Your task to perform on an android device: Open the calendar app, open the side menu, and click the "Day" option Image 0: 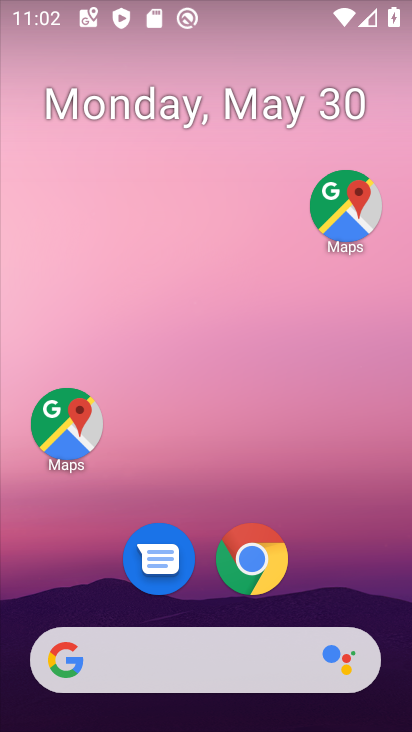
Step 0: drag from (376, 508) to (391, 153)
Your task to perform on an android device: Open the calendar app, open the side menu, and click the "Day" option Image 1: 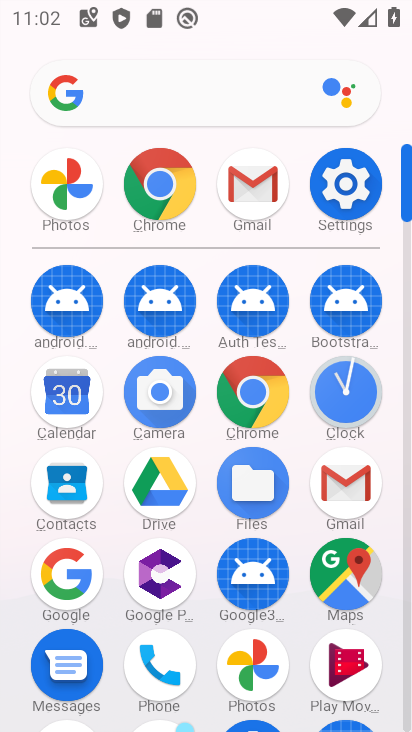
Step 1: click (54, 392)
Your task to perform on an android device: Open the calendar app, open the side menu, and click the "Day" option Image 2: 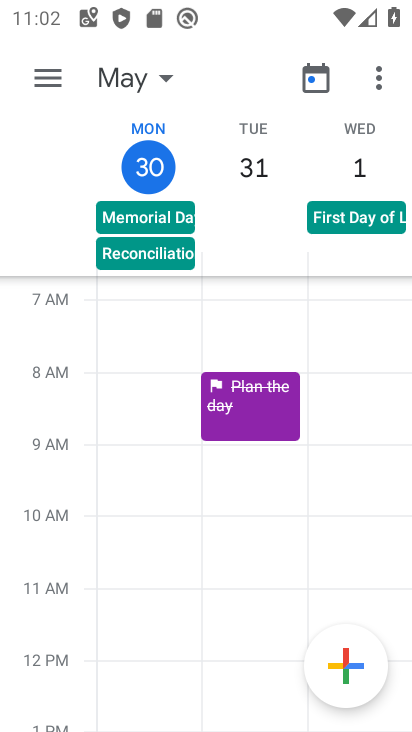
Step 2: click (52, 68)
Your task to perform on an android device: Open the calendar app, open the side menu, and click the "Day" option Image 3: 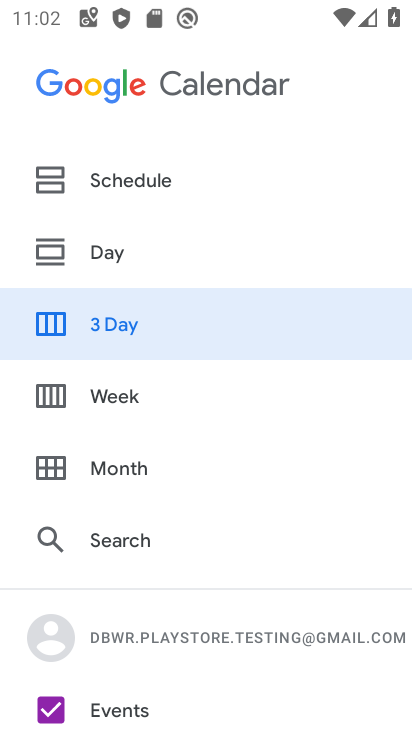
Step 3: click (134, 250)
Your task to perform on an android device: Open the calendar app, open the side menu, and click the "Day" option Image 4: 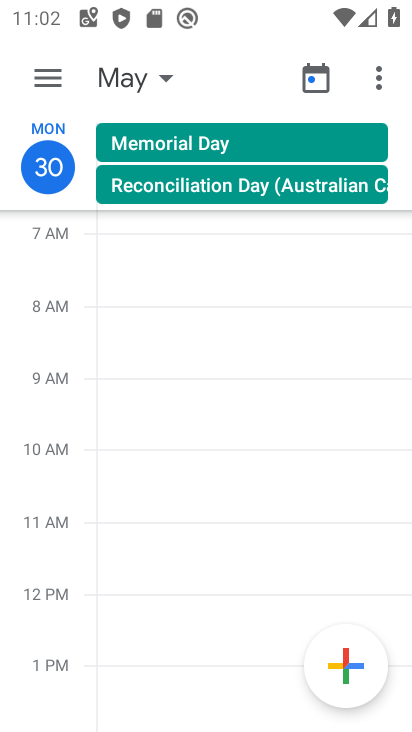
Step 4: task complete